Your task to perform on an android device: Open Google Chrome and click the shortcut for Amazon.com Image 0: 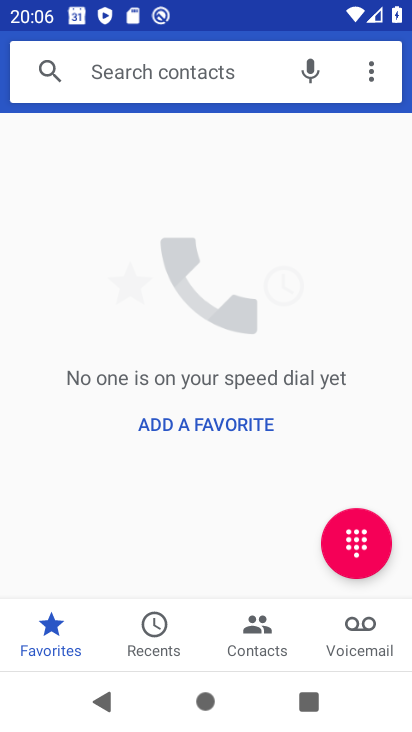
Step 0: press home button
Your task to perform on an android device: Open Google Chrome and click the shortcut for Amazon.com Image 1: 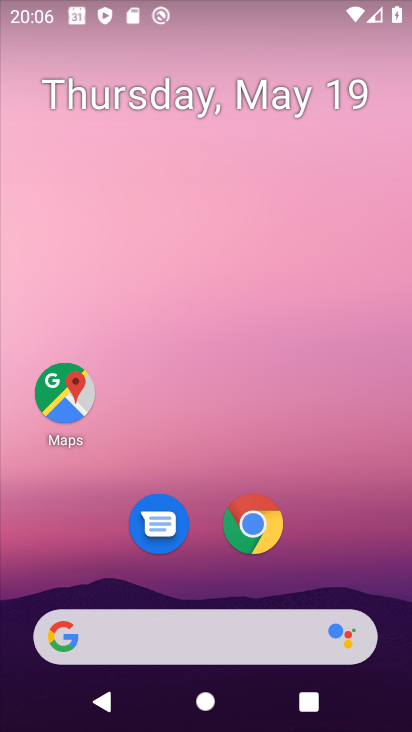
Step 1: click (260, 526)
Your task to perform on an android device: Open Google Chrome and click the shortcut for Amazon.com Image 2: 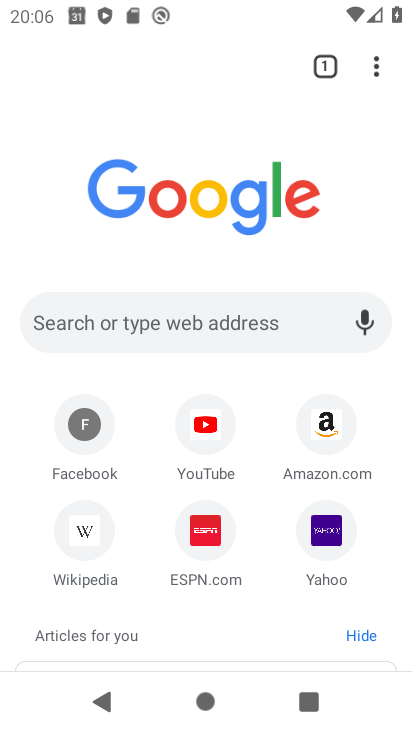
Step 2: click (331, 430)
Your task to perform on an android device: Open Google Chrome and click the shortcut for Amazon.com Image 3: 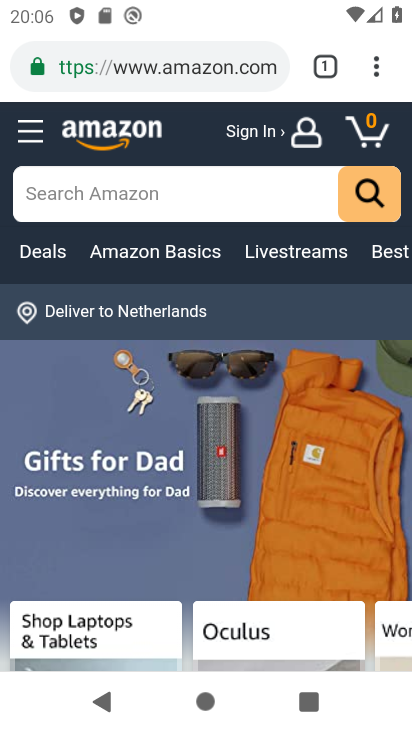
Step 3: task complete